Your task to perform on an android device: set default search engine in the chrome app Image 0: 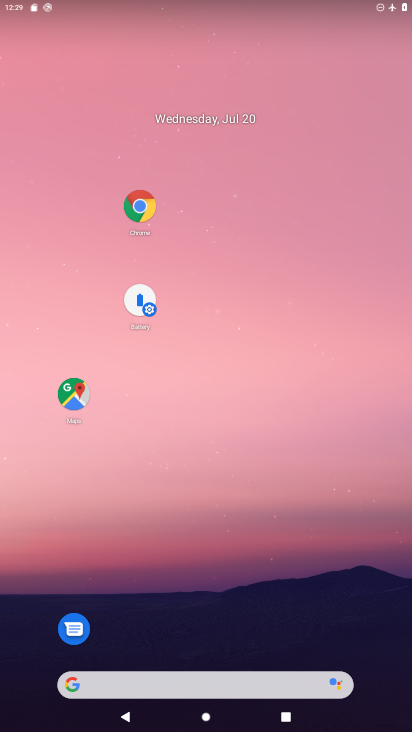
Step 0: drag from (210, 292) to (399, 105)
Your task to perform on an android device: set default search engine in the chrome app Image 1: 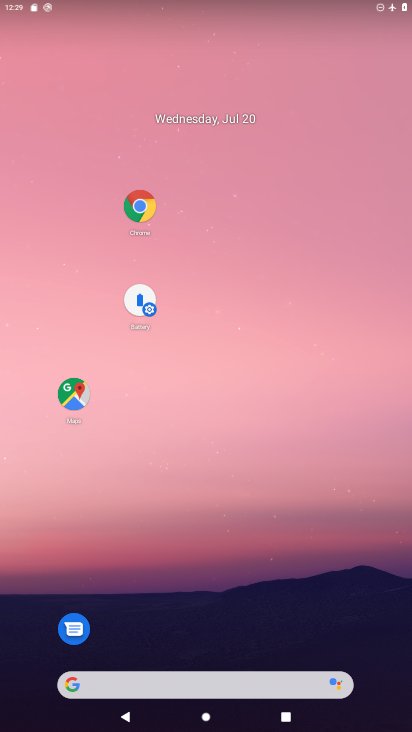
Step 1: click (146, 217)
Your task to perform on an android device: set default search engine in the chrome app Image 2: 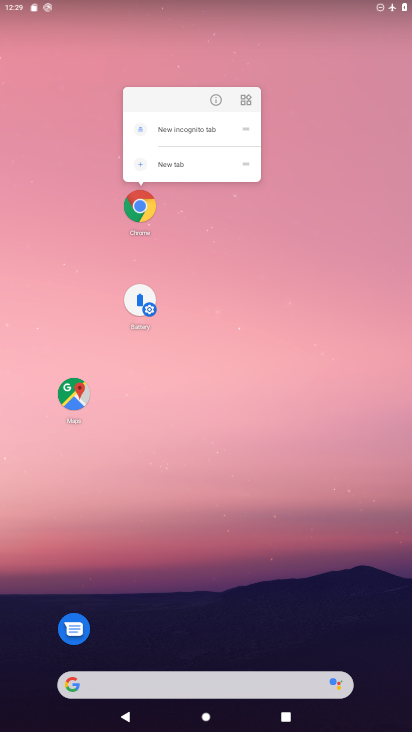
Step 2: click (215, 104)
Your task to perform on an android device: set default search engine in the chrome app Image 3: 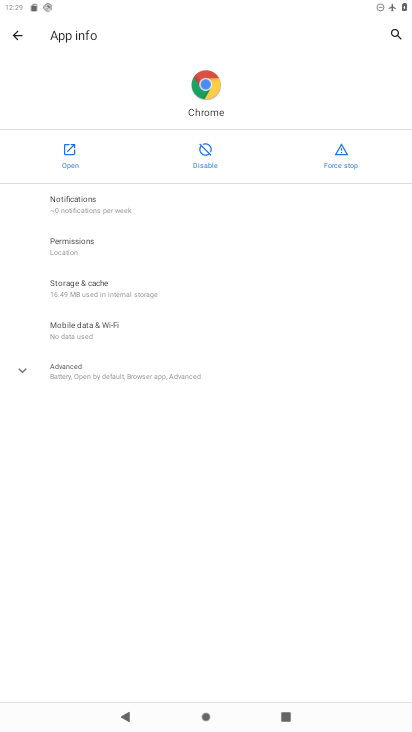
Step 3: click (67, 165)
Your task to perform on an android device: set default search engine in the chrome app Image 4: 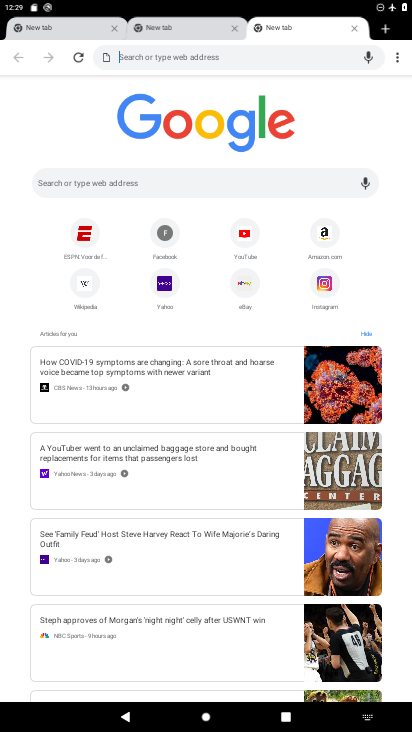
Step 4: click (397, 64)
Your task to perform on an android device: set default search engine in the chrome app Image 5: 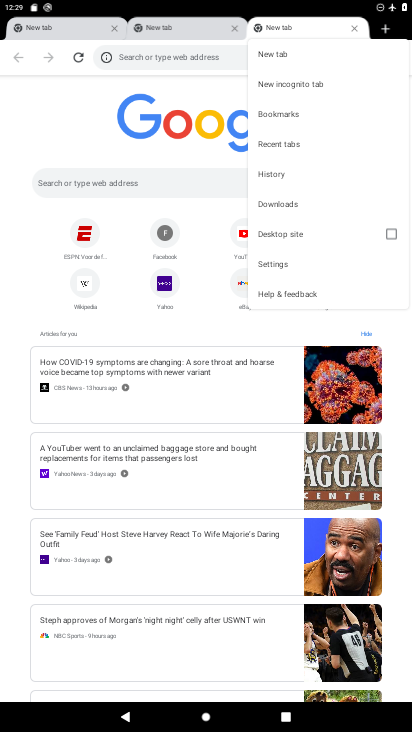
Step 5: click (306, 266)
Your task to perform on an android device: set default search engine in the chrome app Image 6: 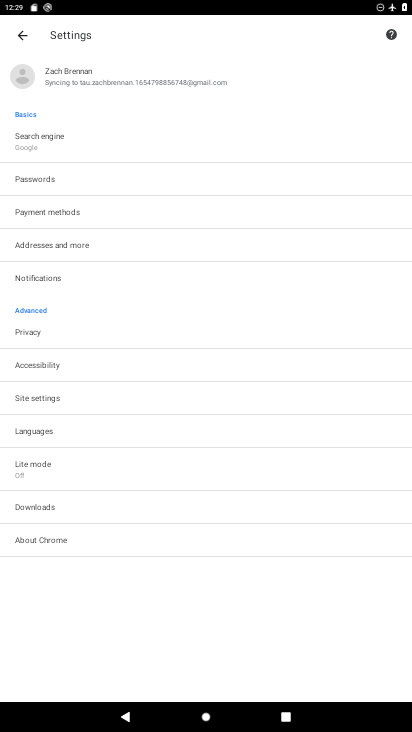
Step 6: click (94, 155)
Your task to perform on an android device: set default search engine in the chrome app Image 7: 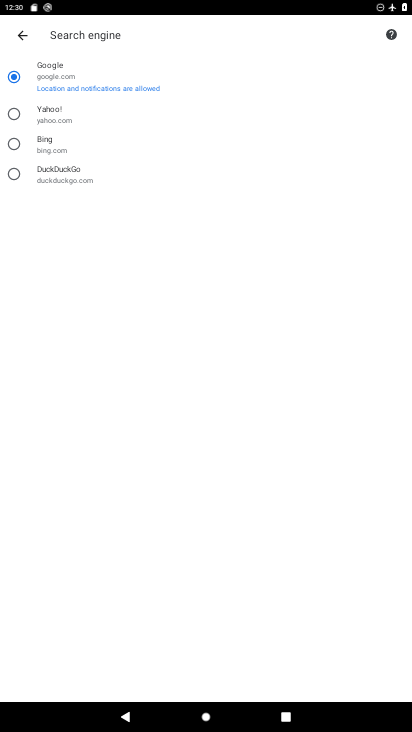
Step 7: click (45, 70)
Your task to perform on an android device: set default search engine in the chrome app Image 8: 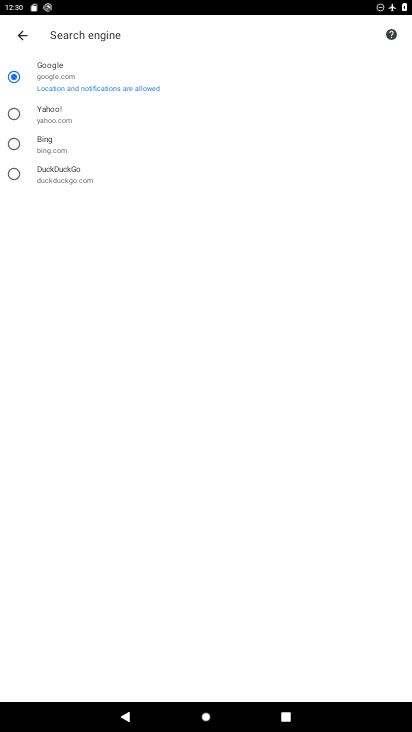
Step 8: task complete